Your task to perform on an android device: turn on data saver in the chrome app Image 0: 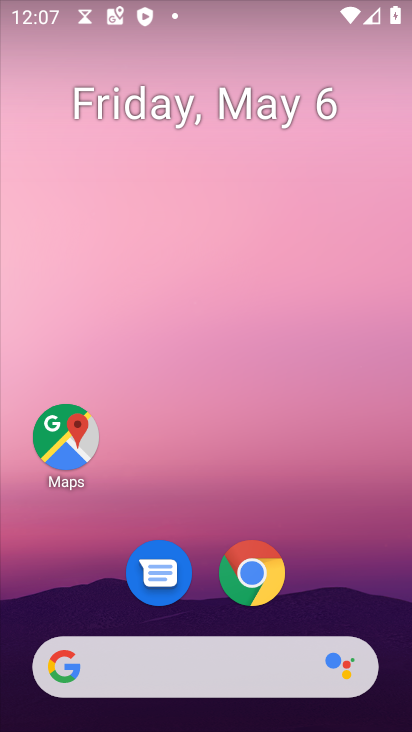
Step 0: drag from (337, 587) to (373, 223)
Your task to perform on an android device: turn on data saver in the chrome app Image 1: 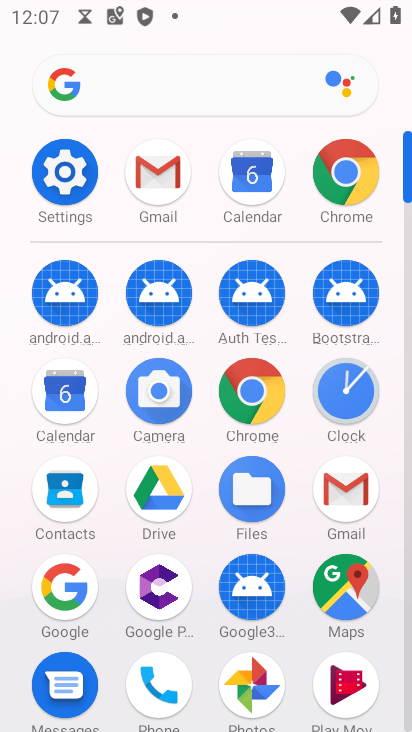
Step 1: click (254, 387)
Your task to perform on an android device: turn on data saver in the chrome app Image 2: 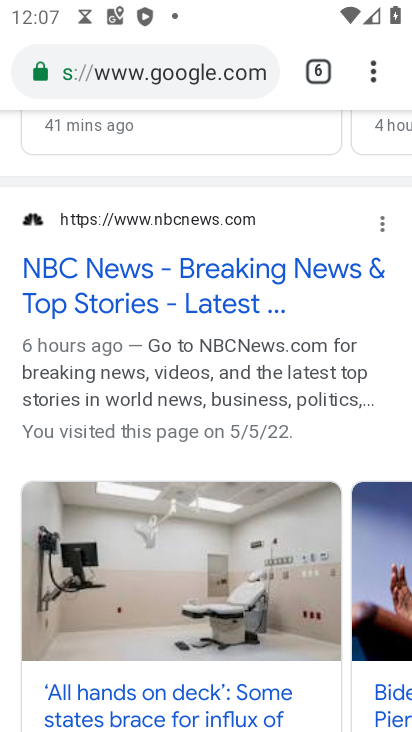
Step 2: click (366, 75)
Your task to perform on an android device: turn on data saver in the chrome app Image 3: 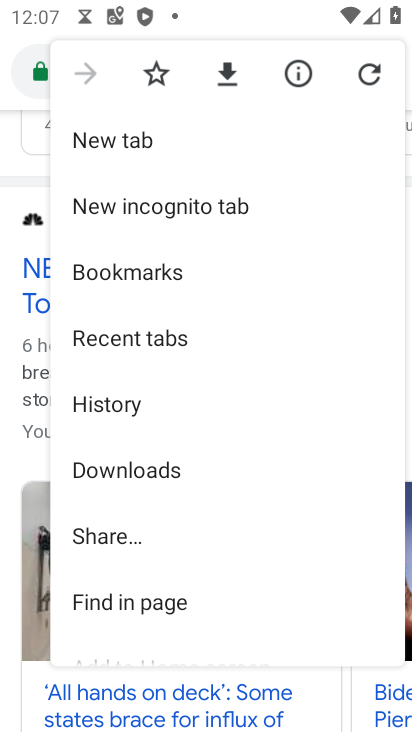
Step 3: drag from (165, 587) to (220, 323)
Your task to perform on an android device: turn on data saver in the chrome app Image 4: 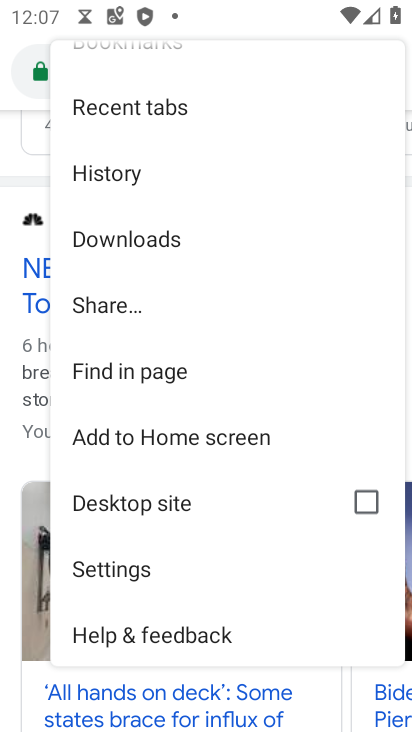
Step 4: click (129, 573)
Your task to perform on an android device: turn on data saver in the chrome app Image 5: 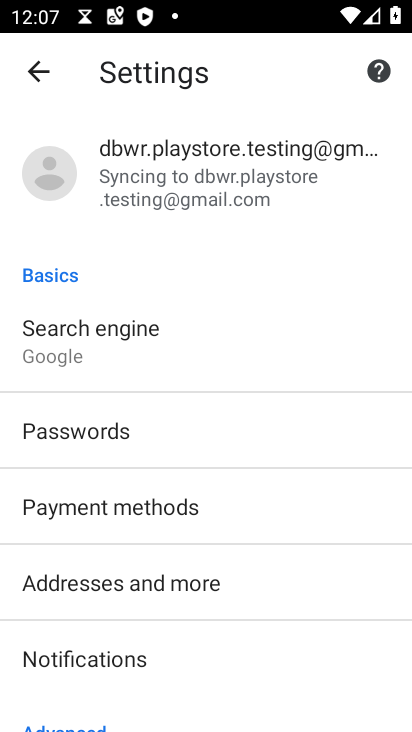
Step 5: drag from (217, 654) to (263, 359)
Your task to perform on an android device: turn on data saver in the chrome app Image 6: 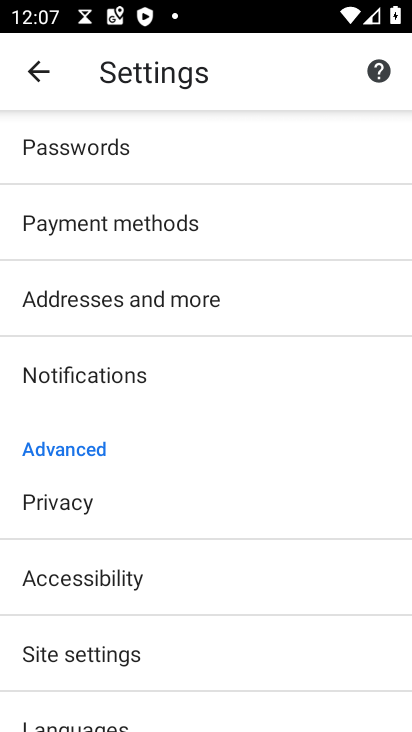
Step 6: drag from (168, 650) to (220, 375)
Your task to perform on an android device: turn on data saver in the chrome app Image 7: 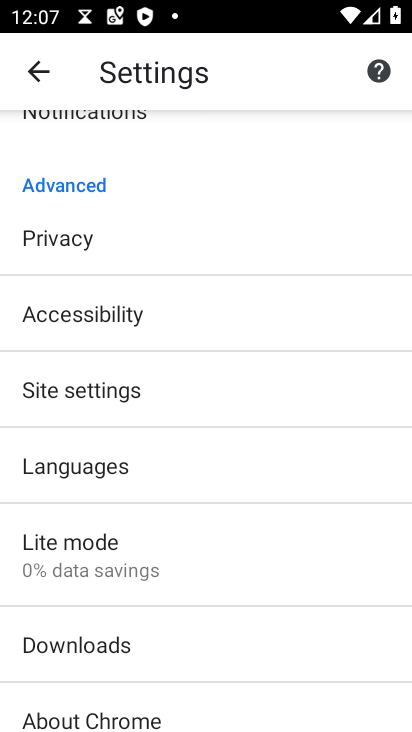
Step 7: click (114, 558)
Your task to perform on an android device: turn on data saver in the chrome app Image 8: 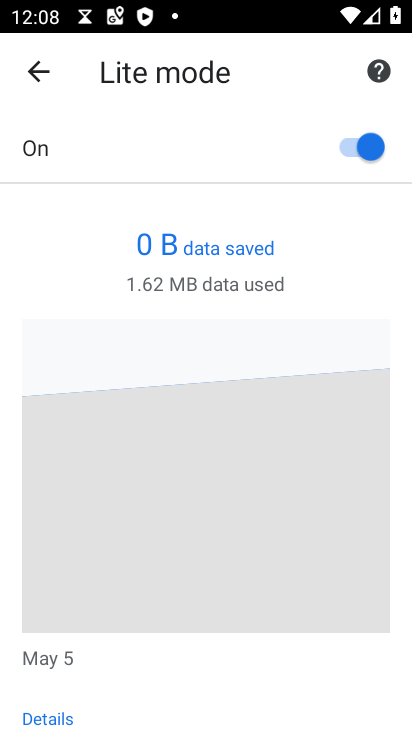
Step 8: task complete